Your task to perform on an android device: change notification settings in the gmail app Image 0: 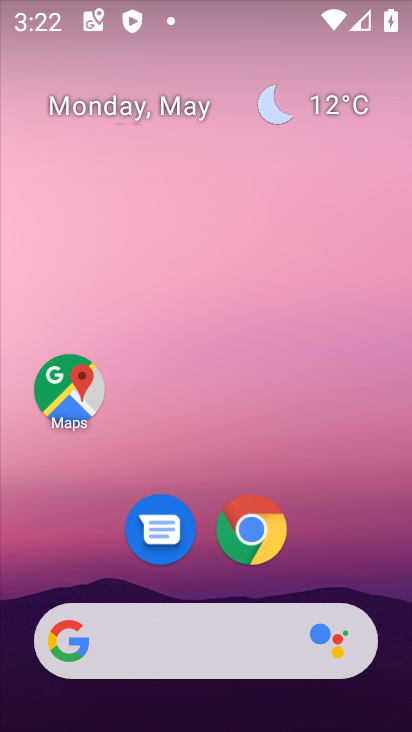
Step 0: drag from (316, 512) to (253, 9)
Your task to perform on an android device: change notification settings in the gmail app Image 1: 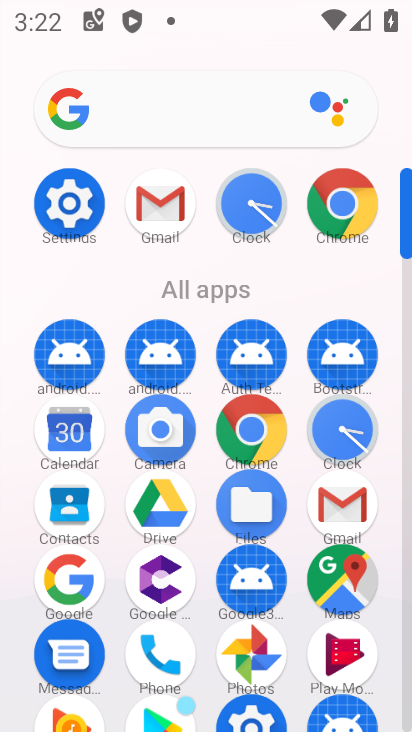
Step 1: click (161, 221)
Your task to perform on an android device: change notification settings in the gmail app Image 2: 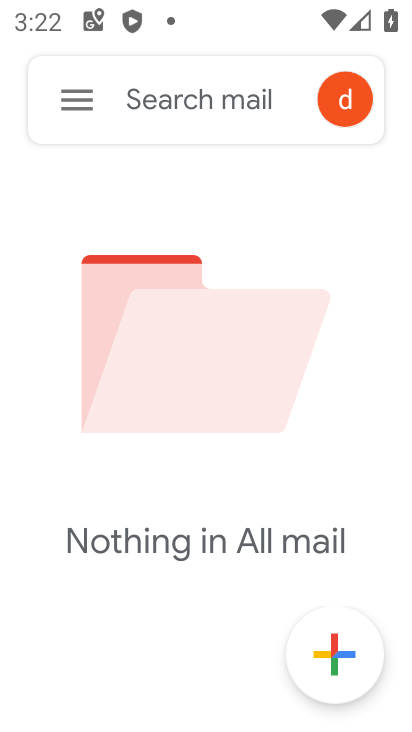
Step 2: click (97, 108)
Your task to perform on an android device: change notification settings in the gmail app Image 3: 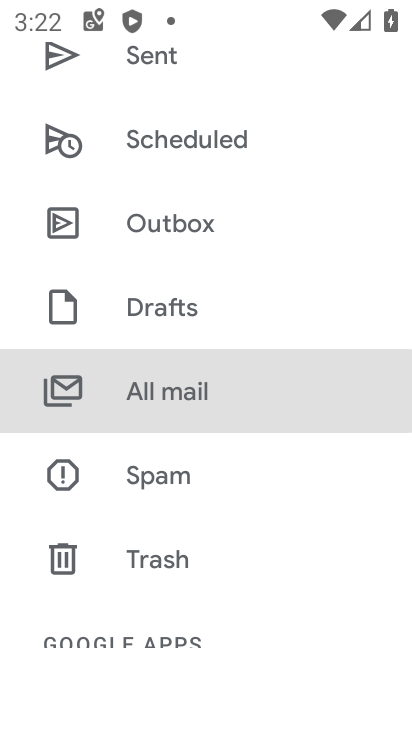
Step 3: drag from (191, 588) to (252, 157)
Your task to perform on an android device: change notification settings in the gmail app Image 4: 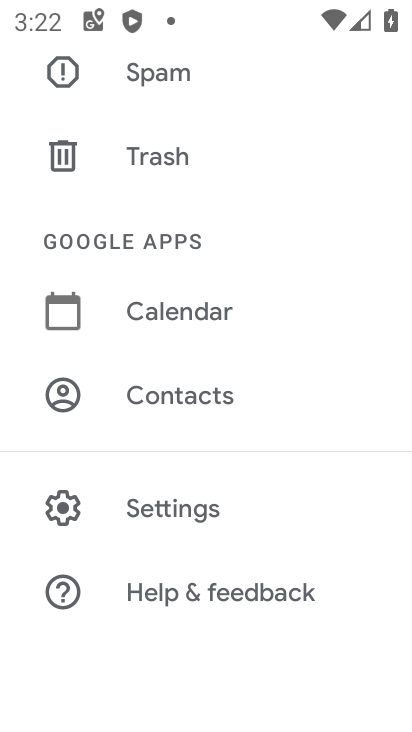
Step 4: click (156, 517)
Your task to perform on an android device: change notification settings in the gmail app Image 5: 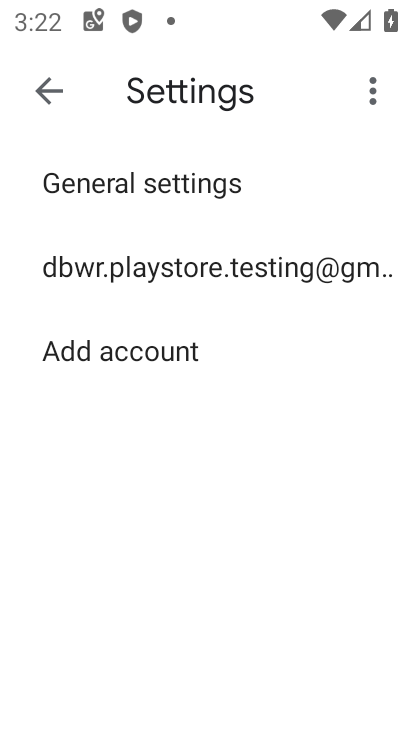
Step 5: click (283, 261)
Your task to perform on an android device: change notification settings in the gmail app Image 6: 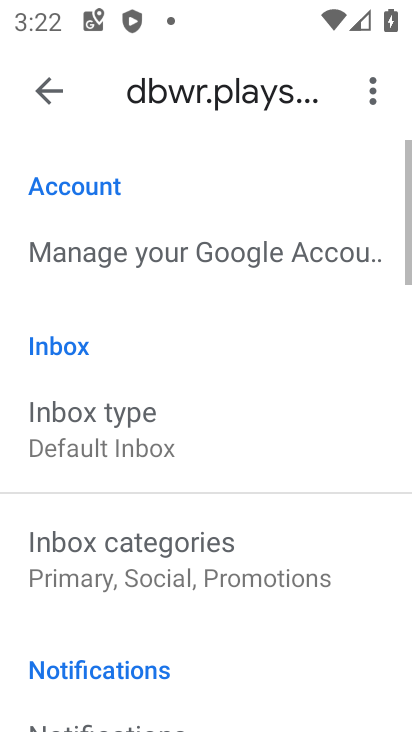
Step 6: drag from (176, 538) to (200, 101)
Your task to perform on an android device: change notification settings in the gmail app Image 7: 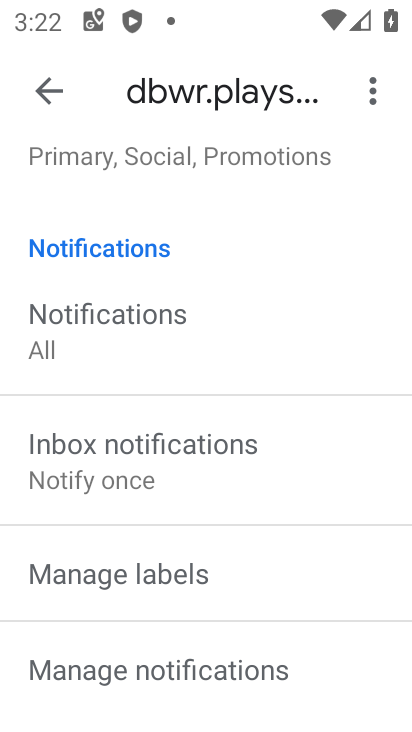
Step 7: drag from (199, 477) to (224, 126)
Your task to perform on an android device: change notification settings in the gmail app Image 8: 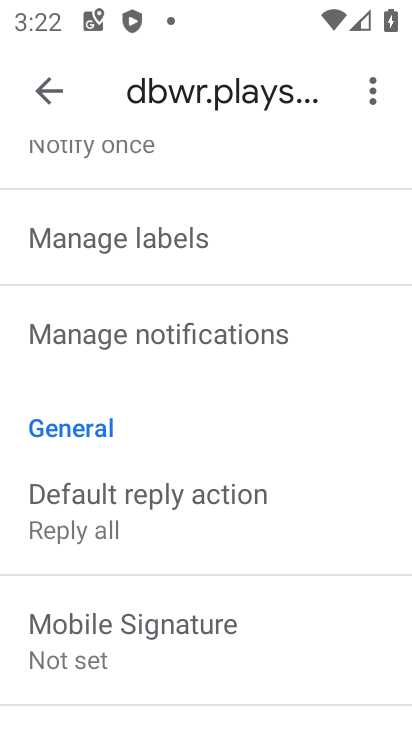
Step 8: click (140, 344)
Your task to perform on an android device: change notification settings in the gmail app Image 9: 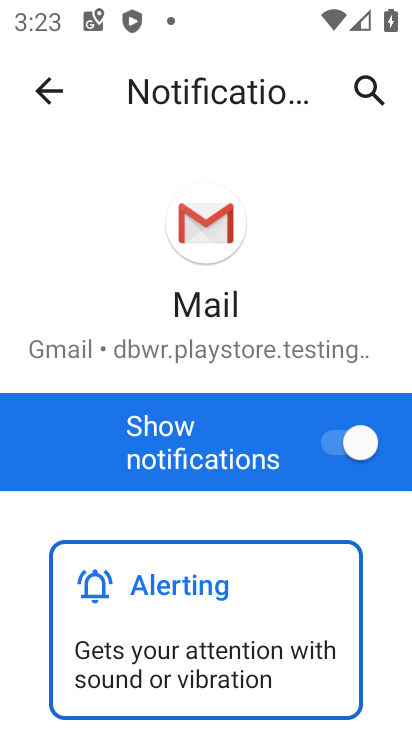
Step 9: drag from (221, 562) to (254, 228)
Your task to perform on an android device: change notification settings in the gmail app Image 10: 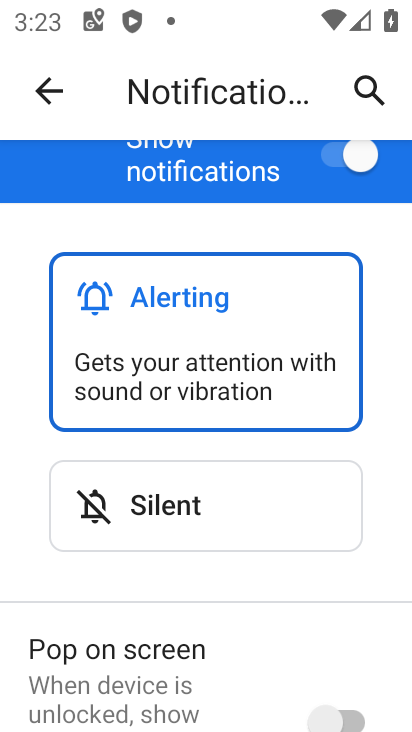
Step 10: click (346, 152)
Your task to perform on an android device: change notification settings in the gmail app Image 11: 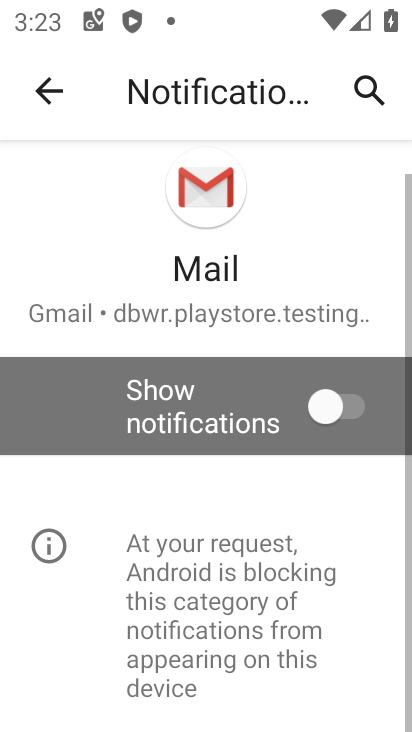
Step 11: task complete